Your task to perform on an android device: clear all cookies in the chrome app Image 0: 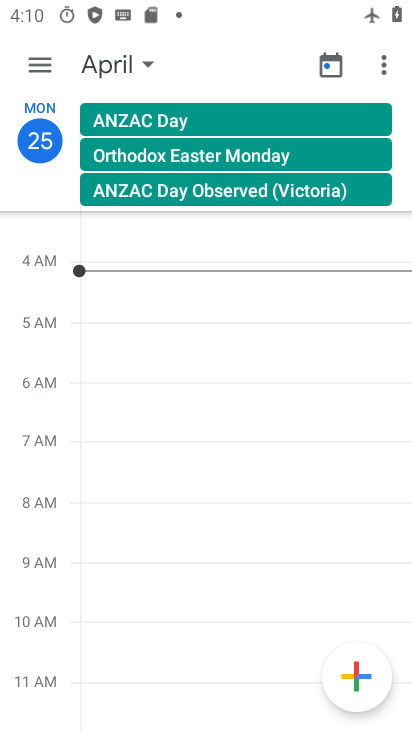
Step 0: press home button
Your task to perform on an android device: clear all cookies in the chrome app Image 1: 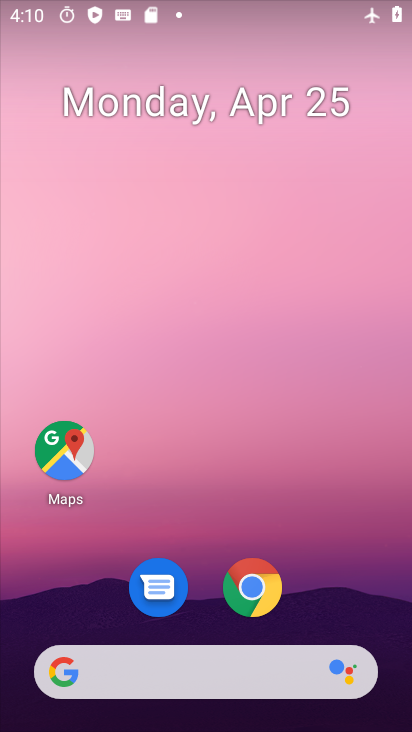
Step 1: click (256, 594)
Your task to perform on an android device: clear all cookies in the chrome app Image 2: 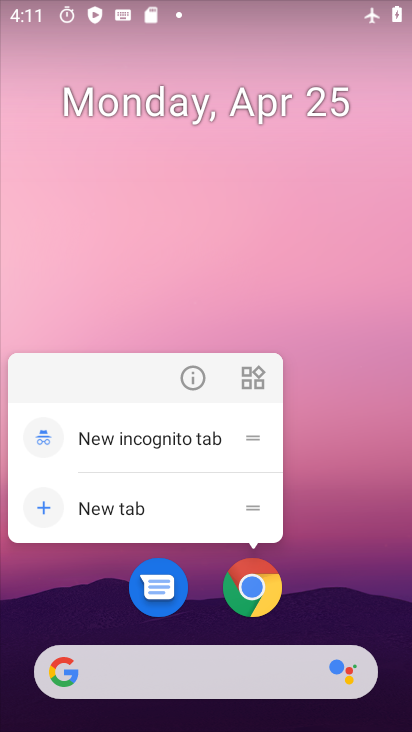
Step 2: drag from (352, 267) to (363, 90)
Your task to perform on an android device: clear all cookies in the chrome app Image 3: 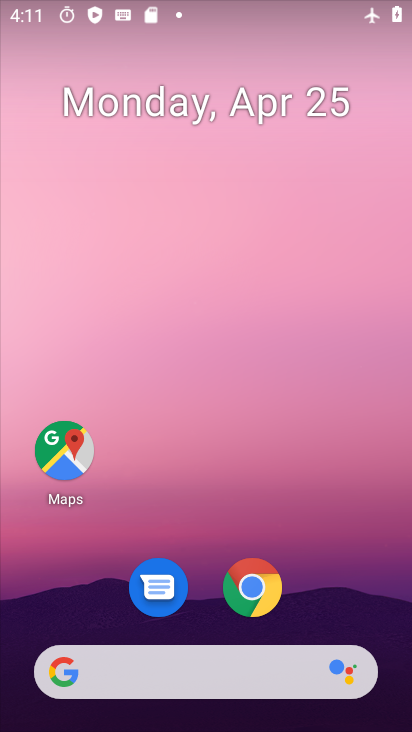
Step 3: drag from (322, 487) to (391, 62)
Your task to perform on an android device: clear all cookies in the chrome app Image 4: 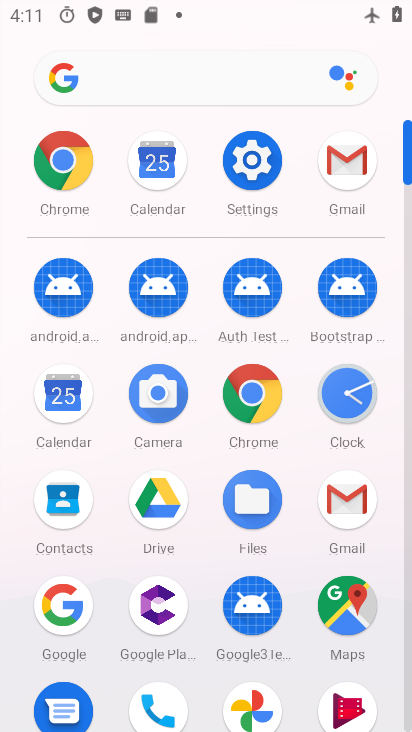
Step 4: click (247, 384)
Your task to perform on an android device: clear all cookies in the chrome app Image 5: 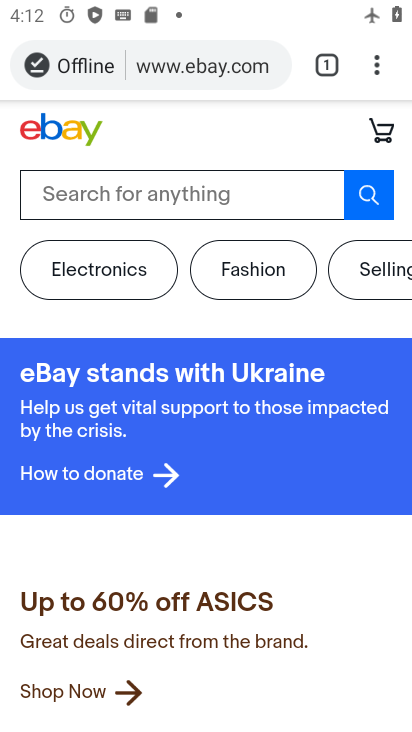
Step 5: task complete